Your task to perform on an android device: Open maps Image 0: 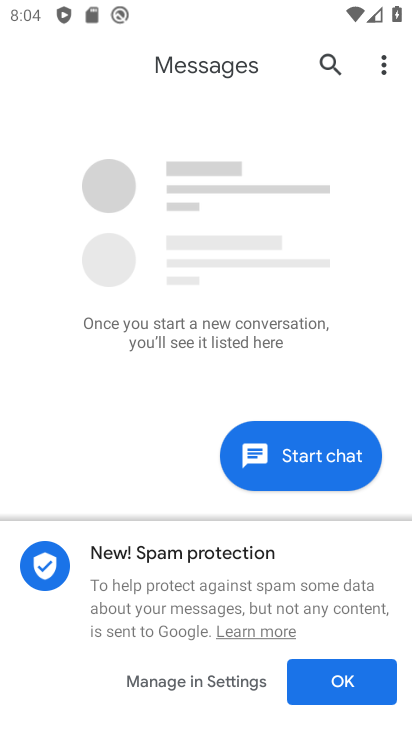
Step 0: press home button
Your task to perform on an android device: Open maps Image 1: 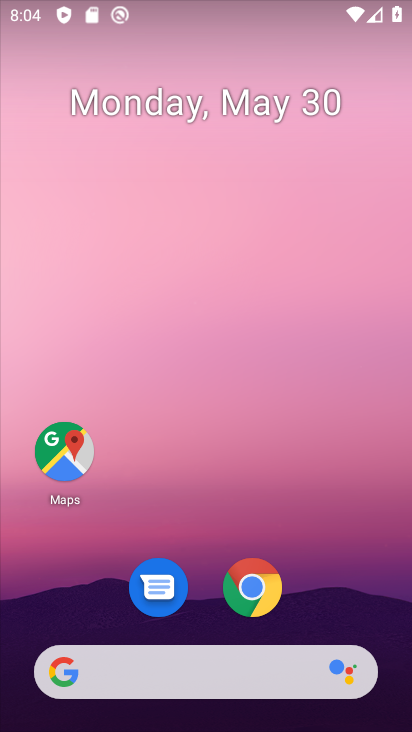
Step 1: drag from (189, 601) to (241, 153)
Your task to perform on an android device: Open maps Image 2: 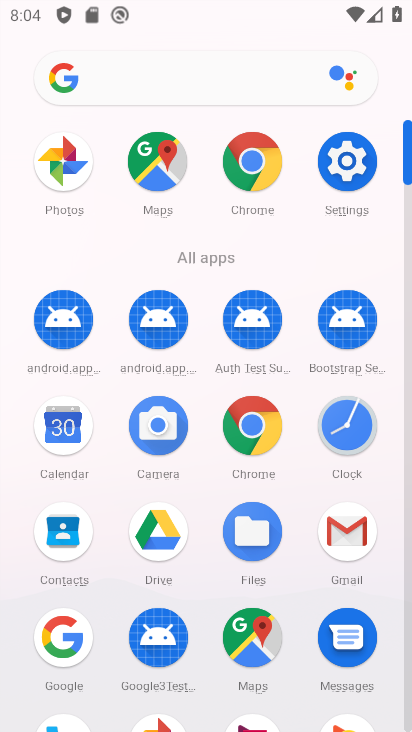
Step 2: click (248, 620)
Your task to perform on an android device: Open maps Image 3: 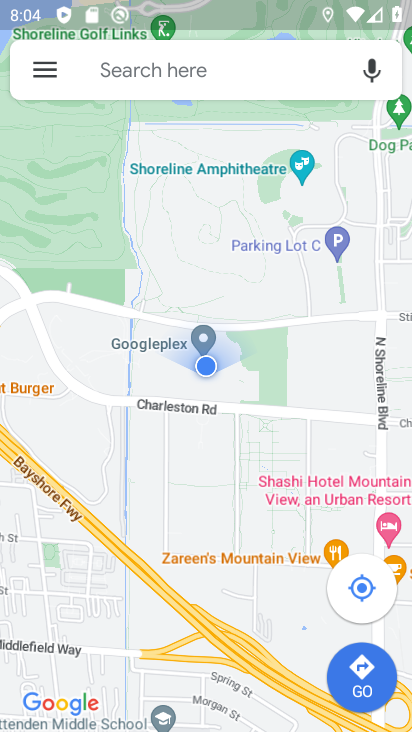
Step 3: task complete